Your task to perform on an android device: turn off priority inbox in the gmail app Image 0: 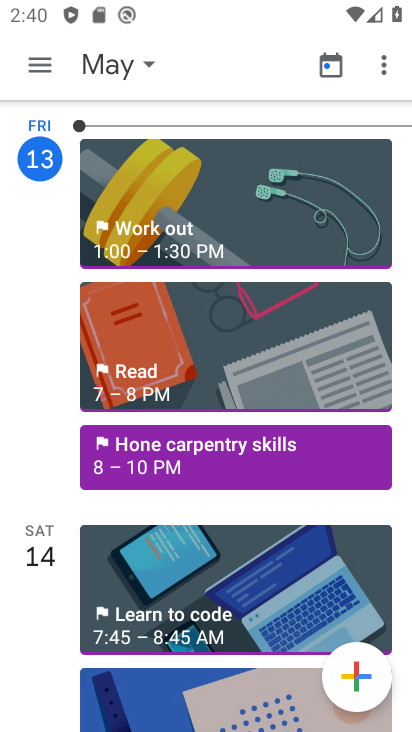
Step 0: press home button
Your task to perform on an android device: turn off priority inbox in the gmail app Image 1: 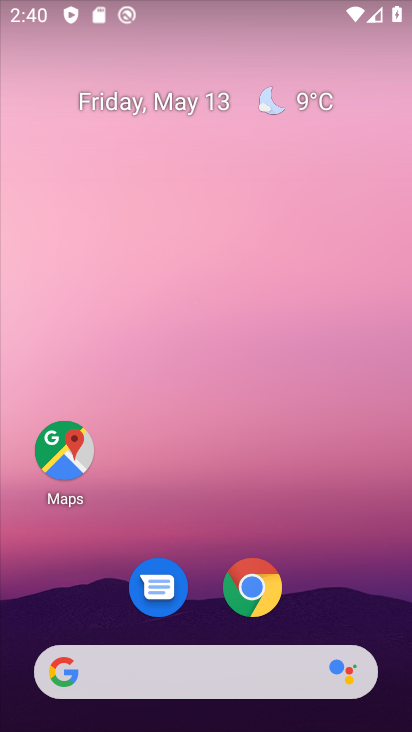
Step 1: drag from (318, 595) to (318, 198)
Your task to perform on an android device: turn off priority inbox in the gmail app Image 2: 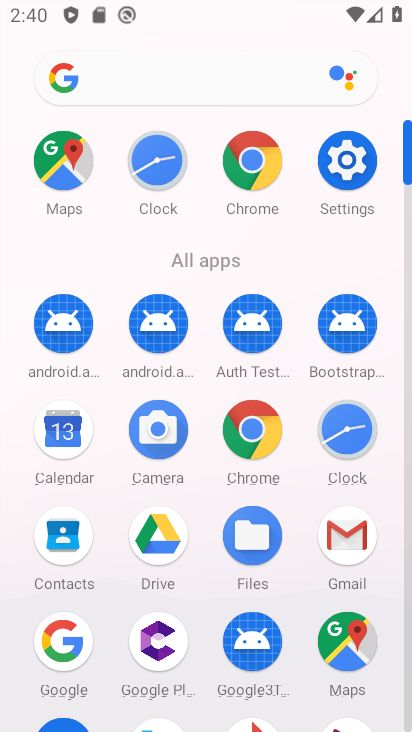
Step 2: click (357, 545)
Your task to perform on an android device: turn off priority inbox in the gmail app Image 3: 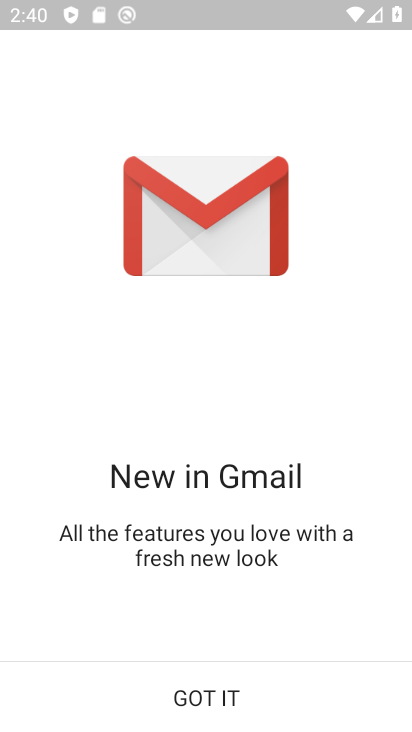
Step 3: click (217, 687)
Your task to perform on an android device: turn off priority inbox in the gmail app Image 4: 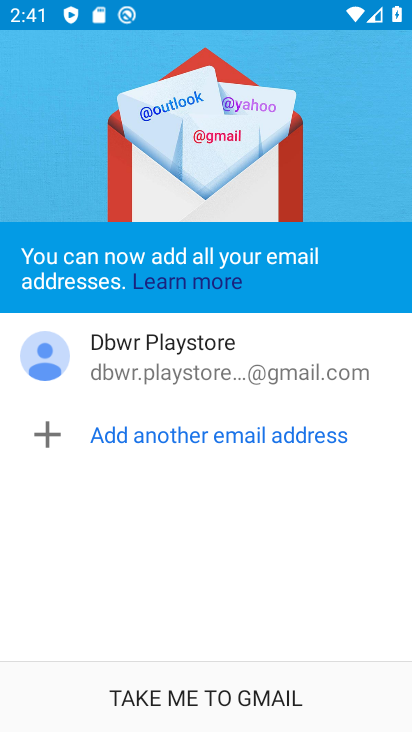
Step 4: click (217, 688)
Your task to perform on an android device: turn off priority inbox in the gmail app Image 5: 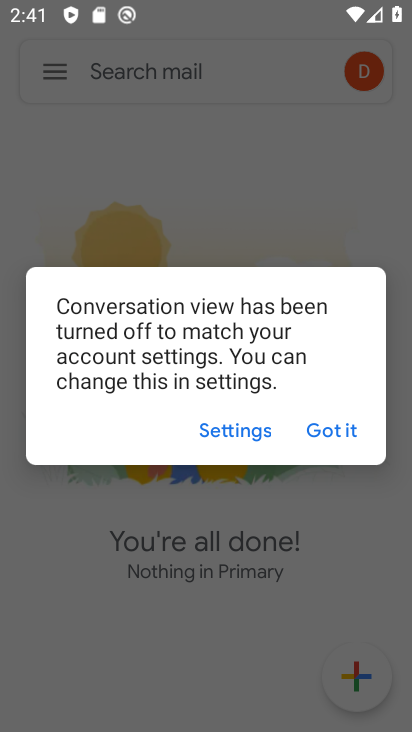
Step 5: click (314, 432)
Your task to perform on an android device: turn off priority inbox in the gmail app Image 6: 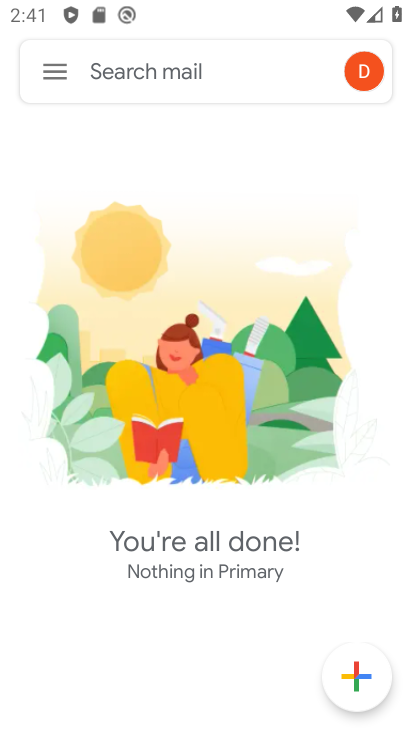
Step 6: click (60, 70)
Your task to perform on an android device: turn off priority inbox in the gmail app Image 7: 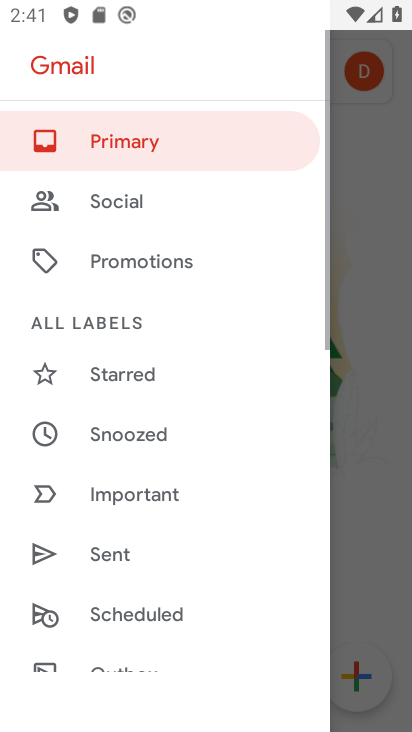
Step 7: drag from (114, 648) to (161, 162)
Your task to perform on an android device: turn off priority inbox in the gmail app Image 8: 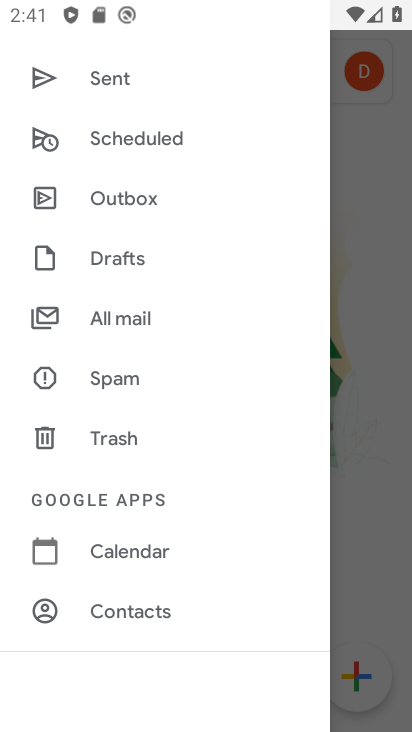
Step 8: drag from (164, 591) to (186, 239)
Your task to perform on an android device: turn off priority inbox in the gmail app Image 9: 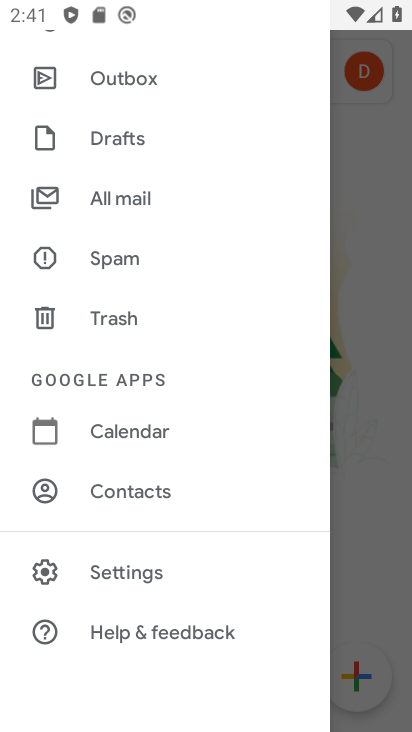
Step 9: click (143, 667)
Your task to perform on an android device: turn off priority inbox in the gmail app Image 10: 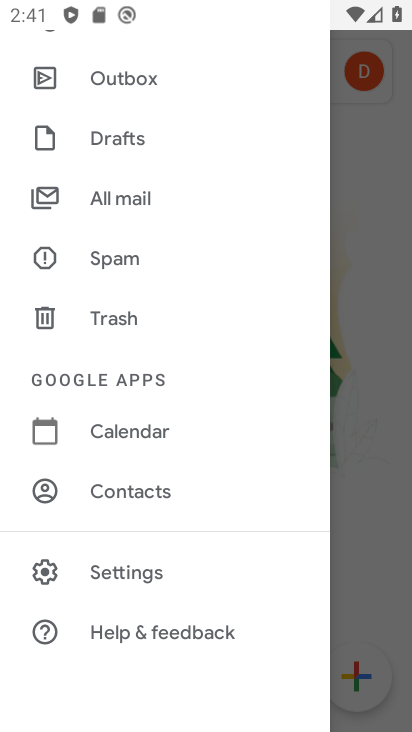
Step 10: click (135, 577)
Your task to perform on an android device: turn off priority inbox in the gmail app Image 11: 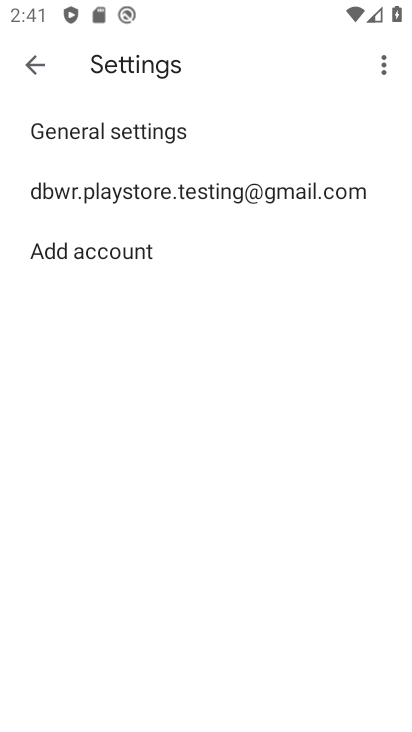
Step 11: click (139, 194)
Your task to perform on an android device: turn off priority inbox in the gmail app Image 12: 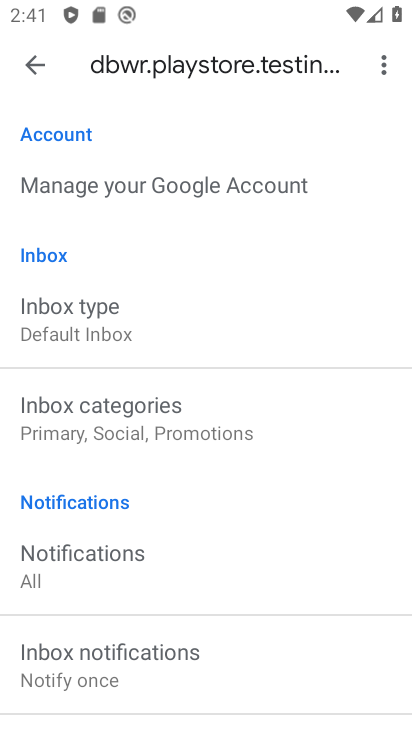
Step 12: drag from (164, 599) to (203, 223)
Your task to perform on an android device: turn off priority inbox in the gmail app Image 13: 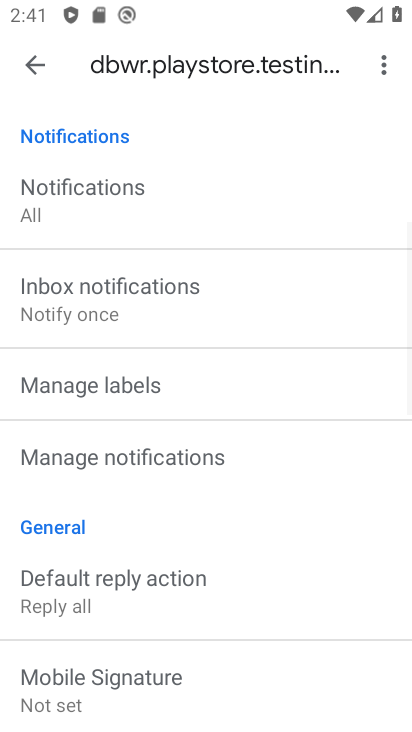
Step 13: drag from (163, 638) to (219, 312)
Your task to perform on an android device: turn off priority inbox in the gmail app Image 14: 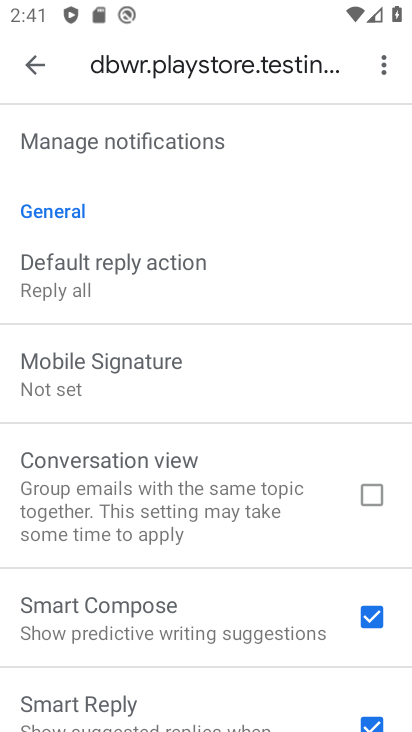
Step 14: drag from (222, 651) to (221, 277)
Your task to perform on an android device: turn off priority inbox in the gmail app Image 15: 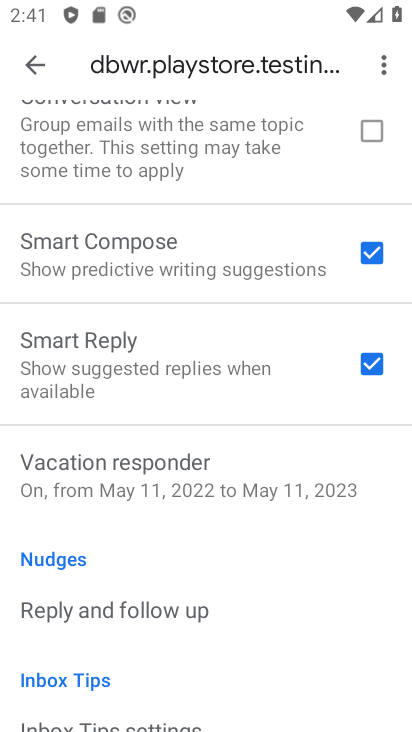
Step 15: drag from (223, 273) to (234, 685)
Your task to perform on an android device: turn off priority inbox in the gmail app Image 16: 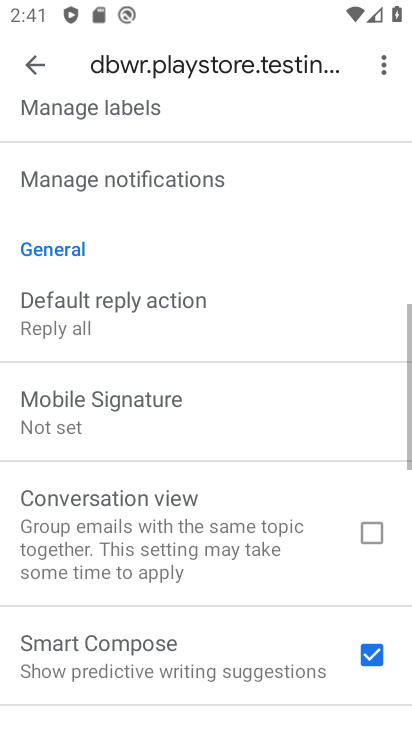
Step 16: drag from (198, 222) to (246, 624)
Your task to perform on an android device: turn off priority inbox in the gmail app Image 17: 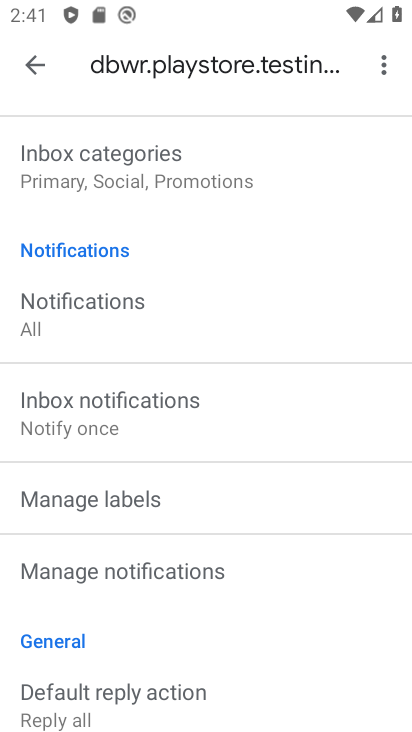
Step 17: click (141, 175)
Your task to perform on an android device: turn off priority inbox in the gmail app Image 18: 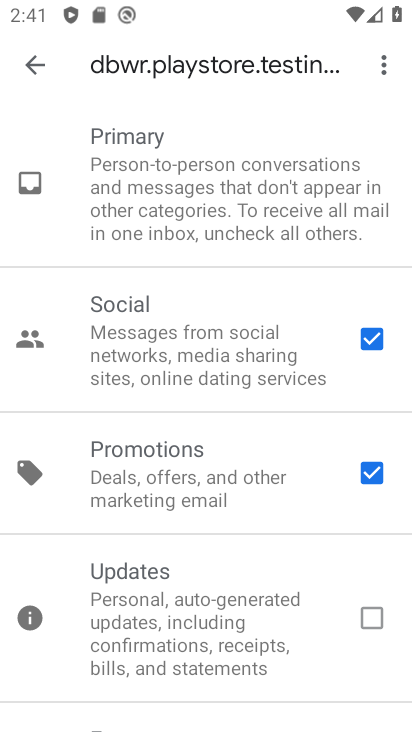
Step 18: press back button
Your task to perform on an android device: turn off priority inbox in the gmail app Image 19: 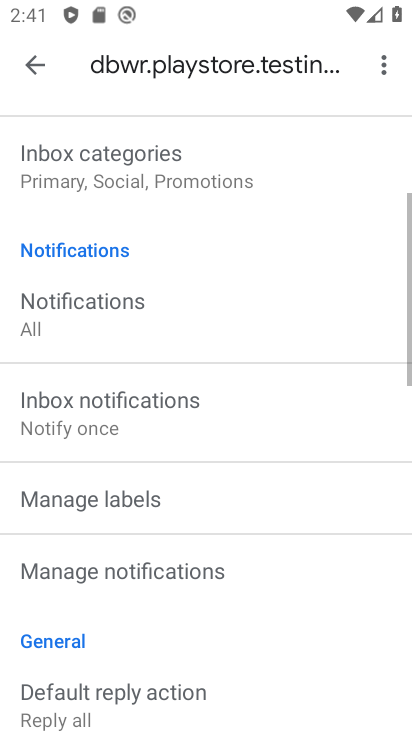
Step 19: drag from (225, 175) to (230, 495)
Your task to perform on an android device: turn off priority inbox in the gmail app Image 20: 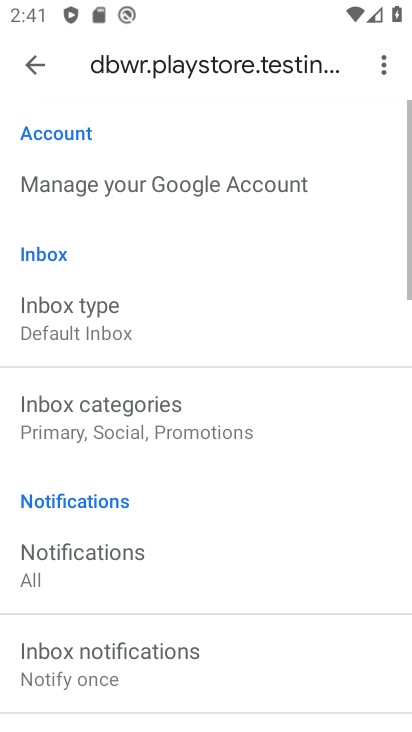
Step 20: click (91, 349)
Your task to perform on an android device: turn off priority inbox in the gmail app Image 21: 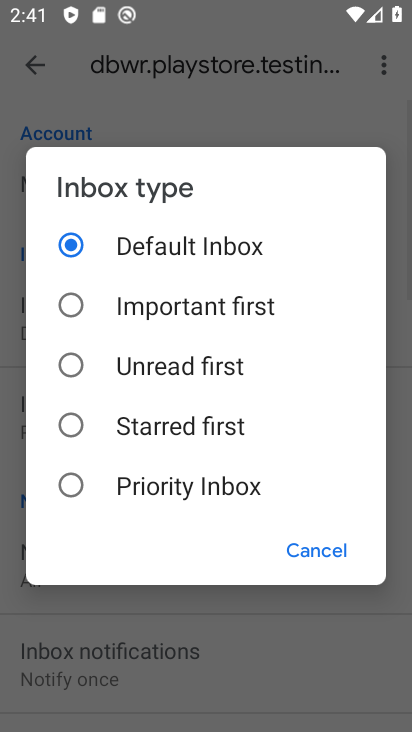
Step 21: click (182, 496)
Your task to perform on an android device: turn off priority inbox in the gmail app Image 22: 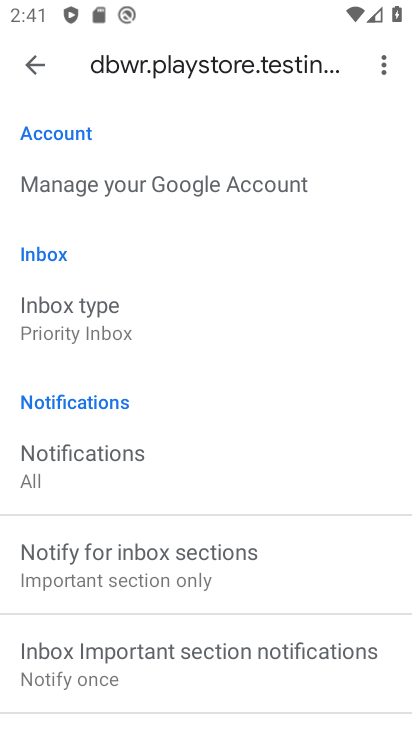
Step 22: click (108, 324)
Your task to perform on an android device: turn off priority inbox in the gmail app Image 23: 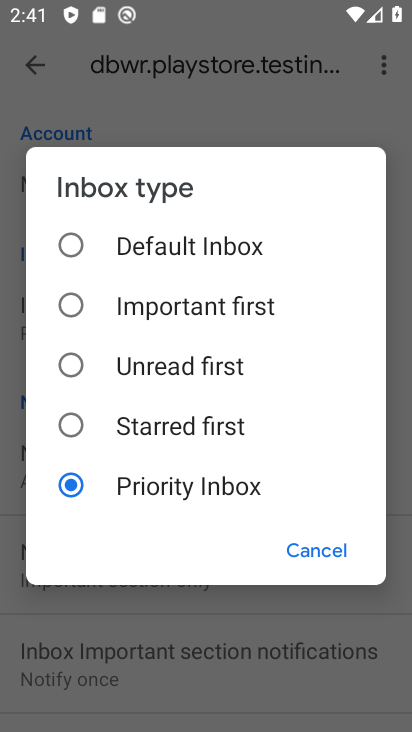
Step 23: click (193, 245)
Your task to perform on an android device: turn off priority inbox in the gmail app Image 24: 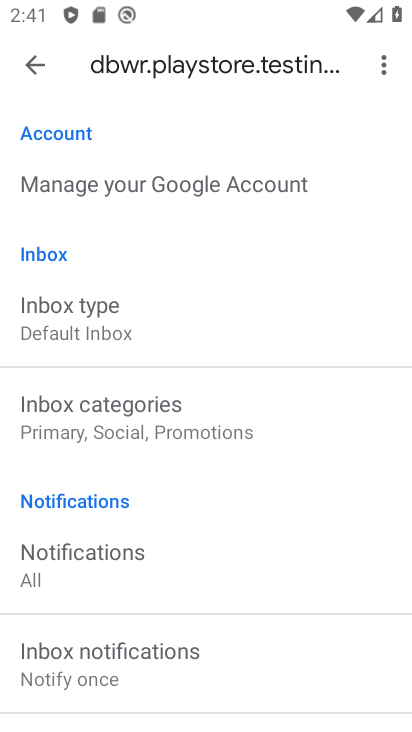
Step 24: task complete